Your task to perform on an android device: Open Google Chrome and click the shortcut for Amazon.com Image 0: 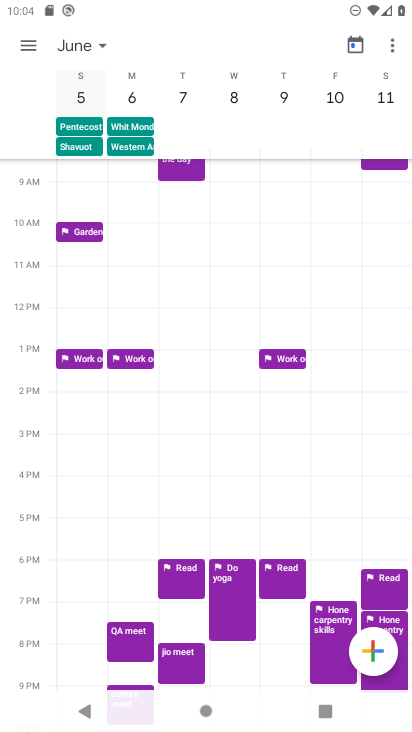
Step 0: press home button
Your task to perform on an android device: Open Google Chrome and click the shortcut for Amazon.com Image 1: 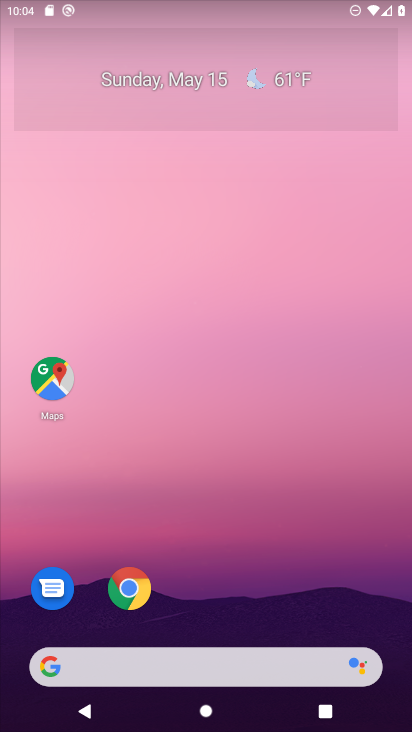
Step 1: click (132, 594)
Your task to perform on an android device: Open Google Chrome and click the shortcut for Amazon.com Image 2: 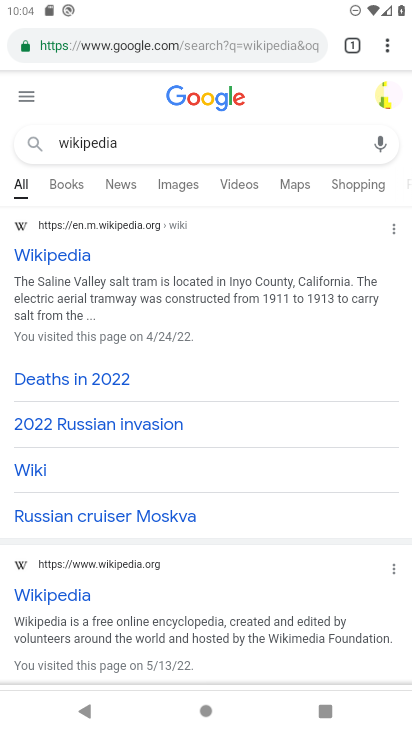
Step 2: click (389, 46)
Your task to perform on an android device: Open Google Chrome and click the shortcut for Amazon.com Image 3: 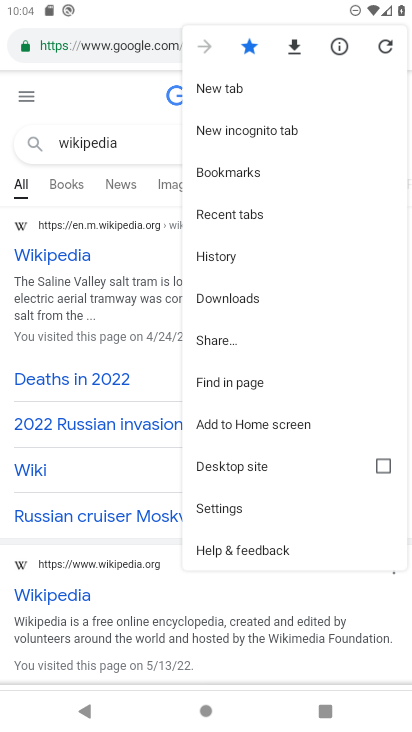
Step 3: click (224, 86)
Your task to perform on an android device: Open Google Chrome and click the shortcut for Amazon.com Image 4: 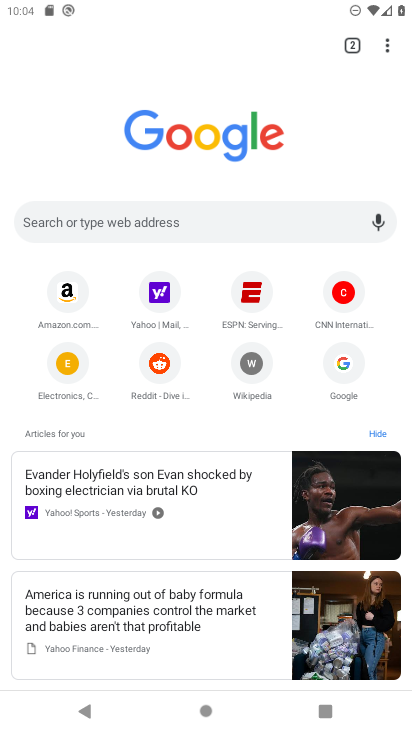
Step 4: click (66, 300)
Your task to perform on an android device: Open Google Chrome and click the shortcut for Amazon.com Image 5: 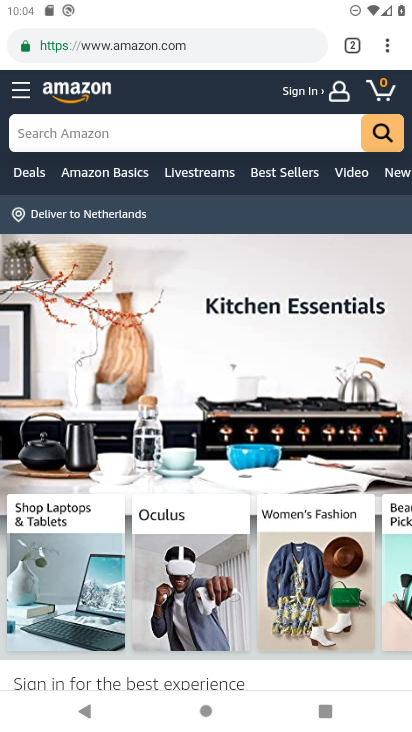
Step 5: task complete